Your task to perform on an android device: Open the calendar app, open the side menu, and click the "Day" option Image 0: 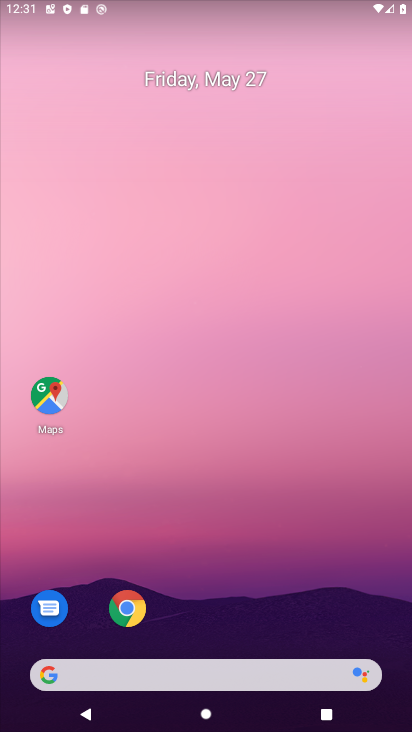
Step 0: drag from (229, 609) to (220, 162)
Your task to perform on an android device: Open the calendar app, open the side menu, and click the "Day" option Image 1: 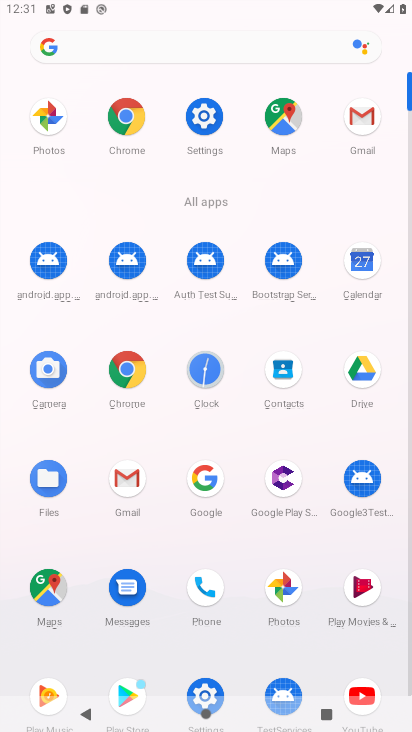
Step 1: click (367, 259)
Your task to perform on an android device: Open the calendar app, open the side menu, and click the "Day" option Image 2: 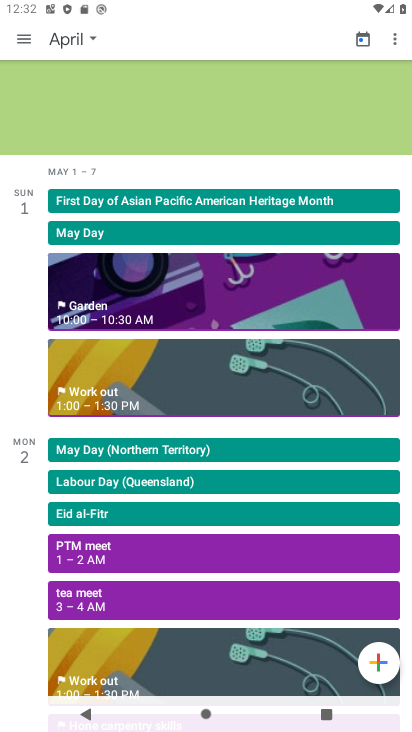
Step 2: click (29, 37)
Your task to perform on an android device: Open the calendar app, open the side menu, and click the "Day" option Image 3: 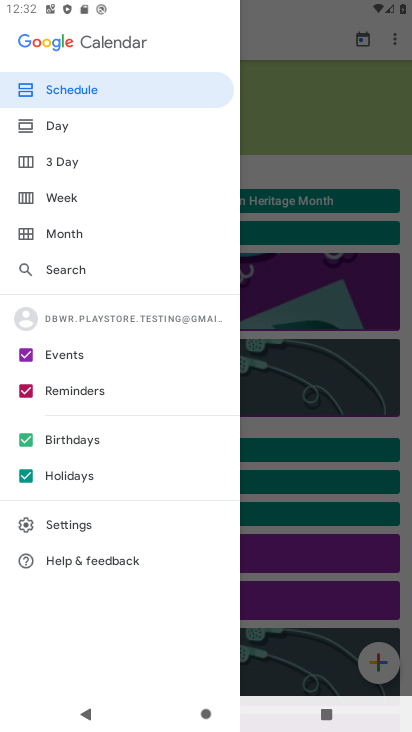
Step 3: click (93, 124)
Your task to perform on an android device: Open the calendar app, open the side menu, and click the "Day" option Image 4: 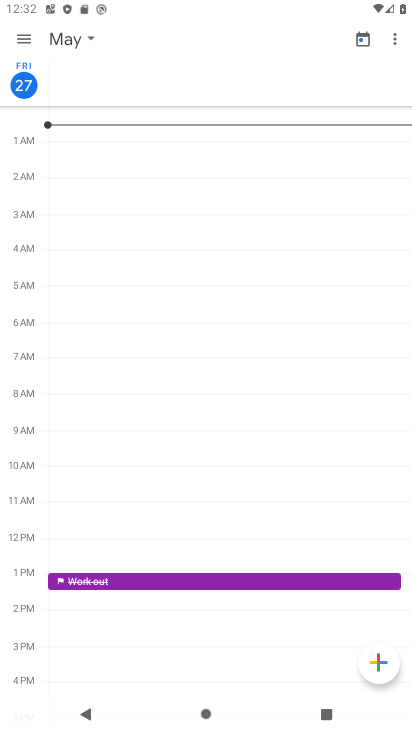
Step 4: task complete